Your task to perform on an android device: install app "Skype" Image 0: 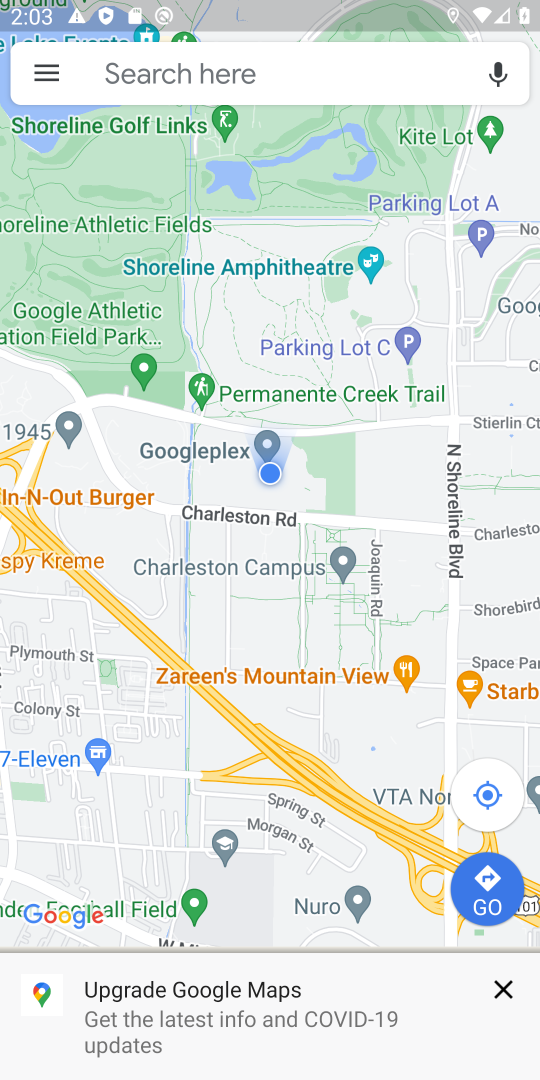
Step 0: press home button
Your task to perform on an android device: install app "Skype" Image 1: 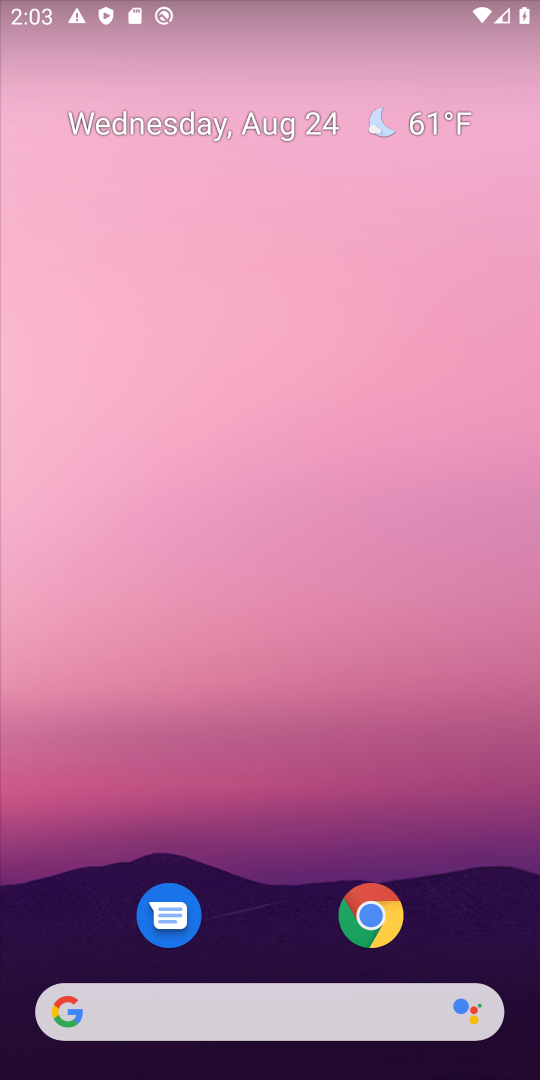
Step 1: drag from (219, 784) to (219, 193)
Your task to perform on an android device: install app "Skype" Image 2: 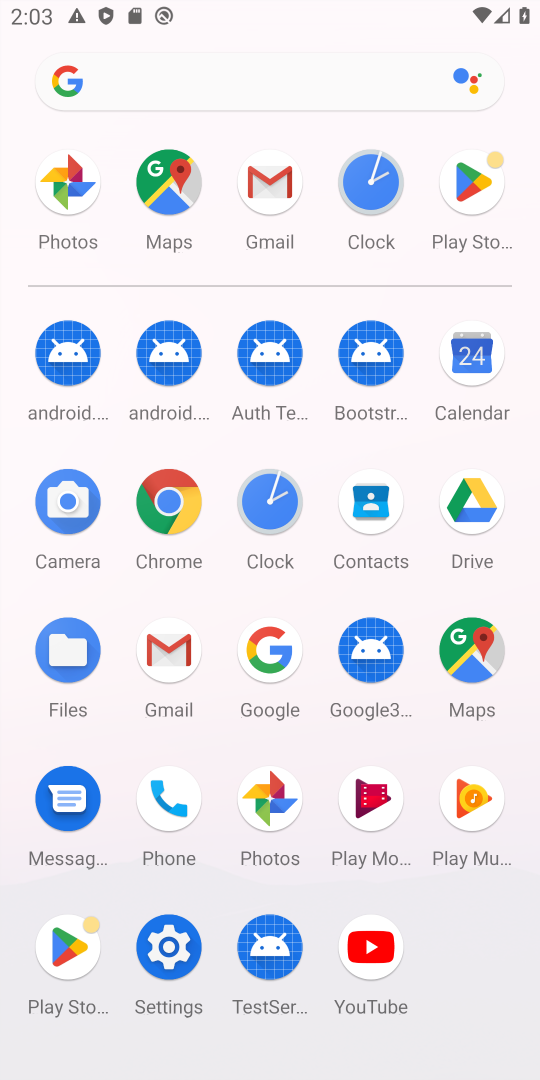
Step 2: click (458, 217)
Your task to perform on an android device: install app "Skype" Image 3: 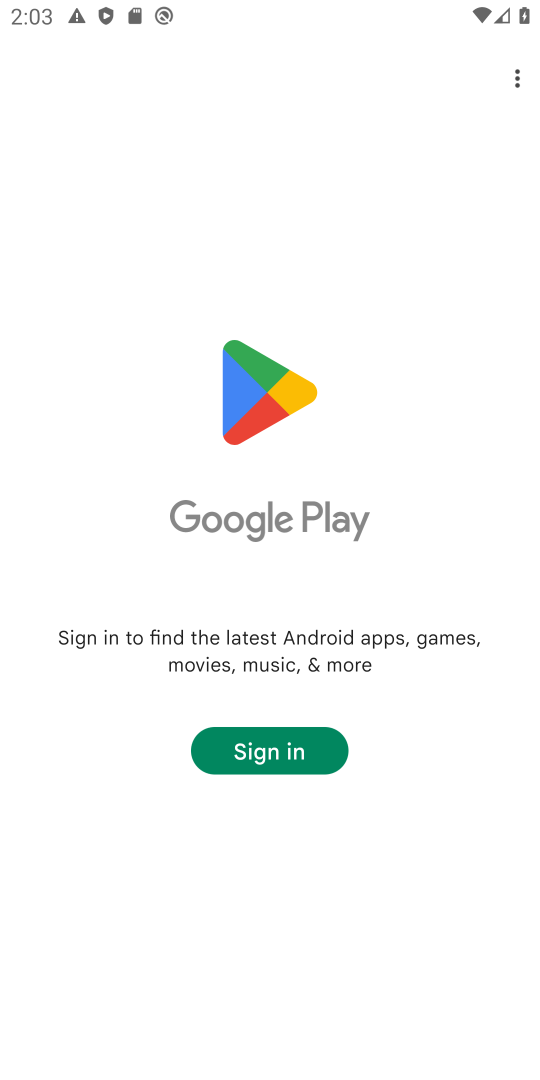
Step 3: task complete